Your task to perform on an android device: Open the calendar app, open the side menu, and click the "Day" option Image 0: 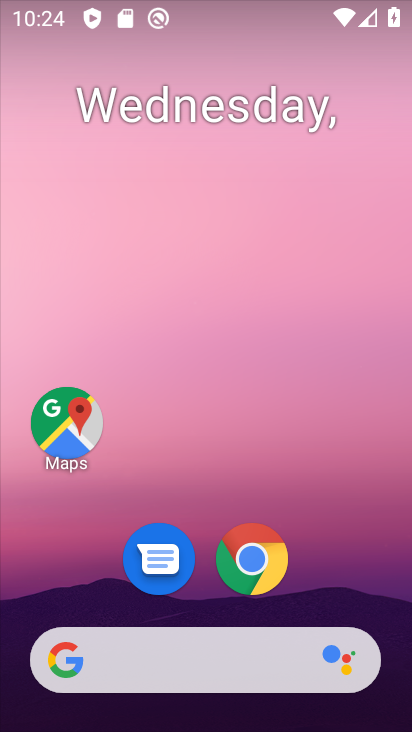
Step 0: drag from (329, 568) to (334, 6)
Your task to perform on an android device: Open the calendar app, open the side menu, and click the "Day" option Image 1: 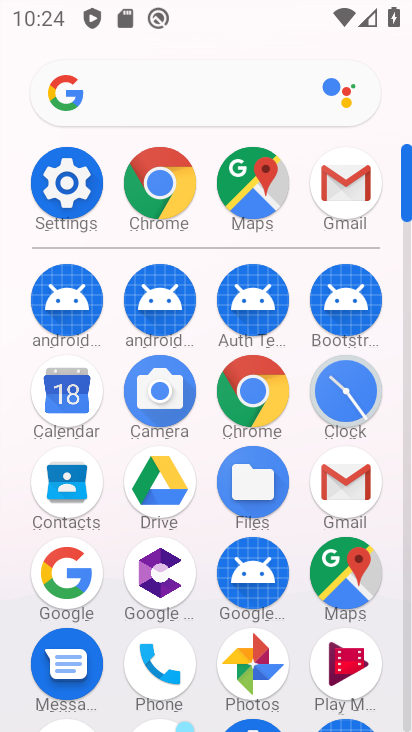
Step 1: click (48, 403)
Your task to perform on an android device: Open the calendar app, open the side menu, and click the "Day" option Image 2: 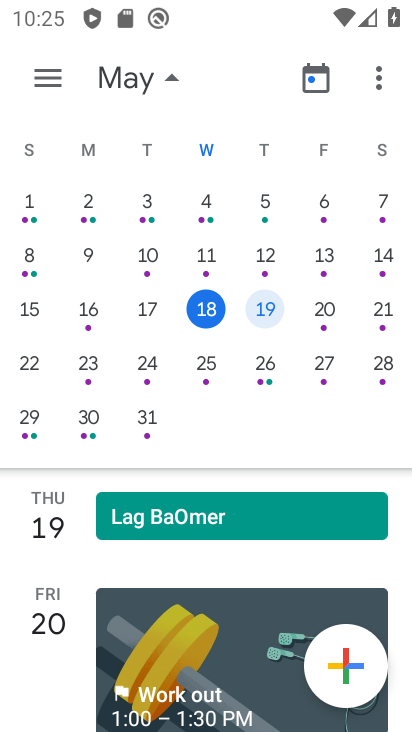
Step 2: click (41, 79)
Your task to perform on an android device: Open the calendar app, open the side menu, and click the "Day" option Image 3: 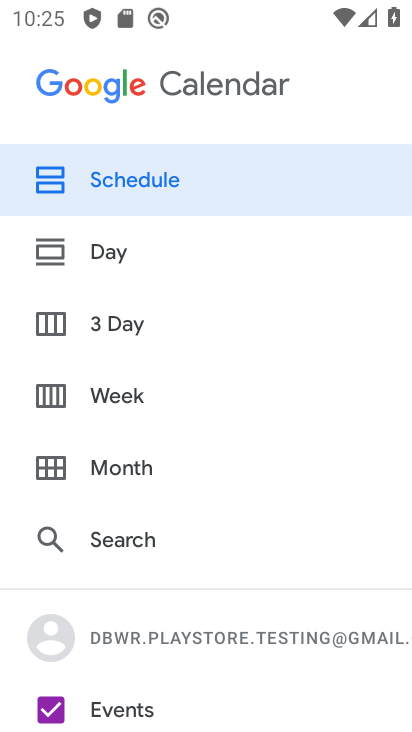
Step 3: click (46, 262)
Your task to perform on an android device: Open the calendar app, open the side menu, and click the "Day" option Image 4: 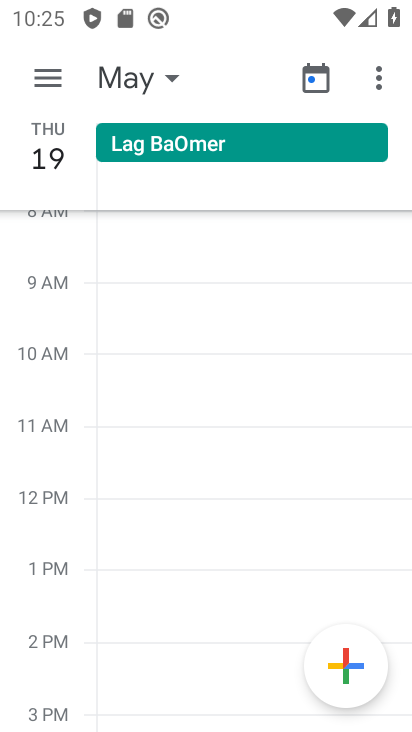
Step 4: task complete